Your task to perform on an android device: turn off data saver in the chrome app Image 0: 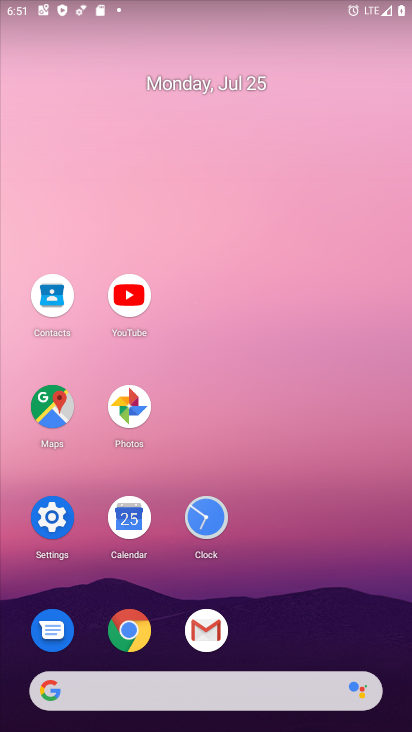
Step 0: click (127, 630)
Your task to perform on an android device: turn off data saver in the chrome app Image 1: 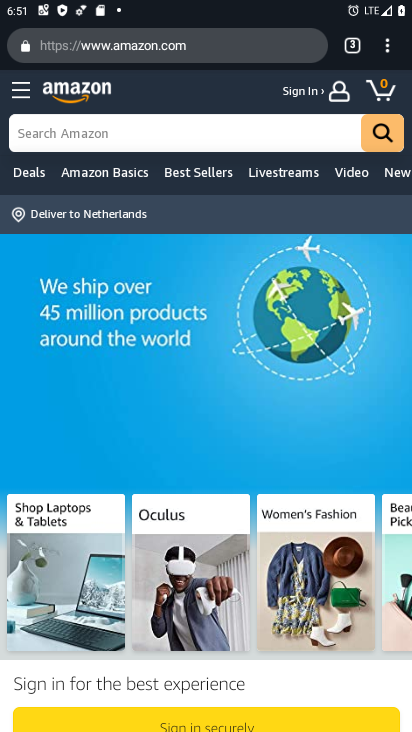
Step 1: click (388, 48)
Your task to perform on an android device: turn off data saver in the chrome app Image 2: 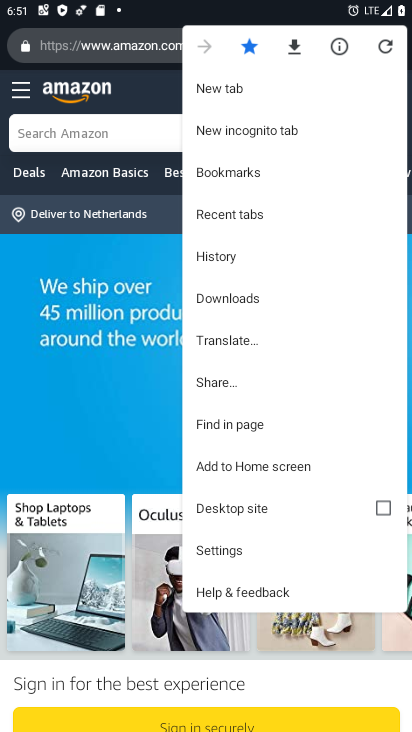
Step 2: click (225, 550)
Your task to perform on an android device: turn off data saver in the chrome app Image 3: 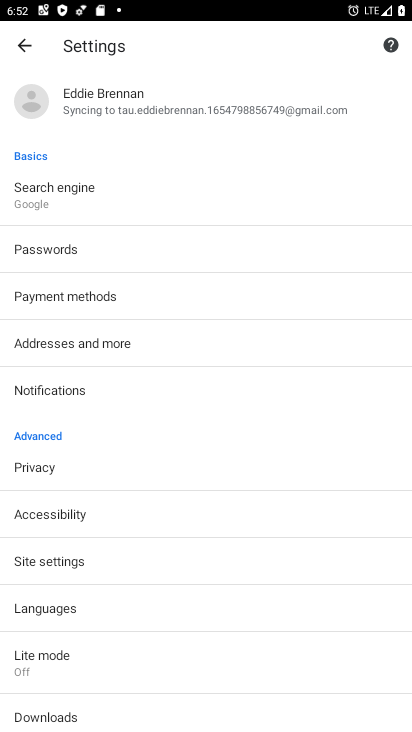
Step 3: click (48, 652)
Your task to perform on an android device: turn off data saver in the chrome app Image 4: 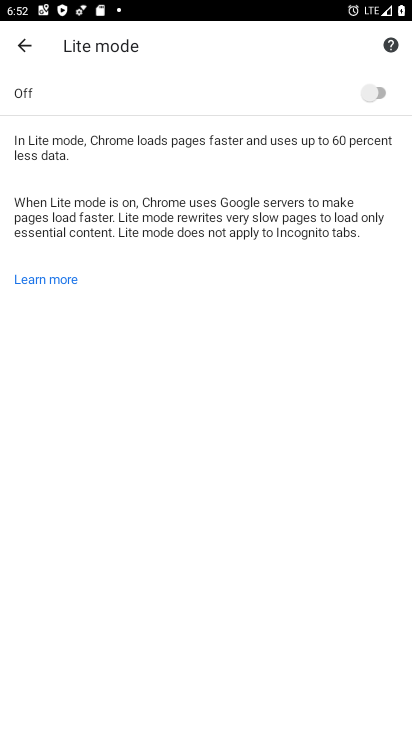
Step 4: task complete